Your task to perform on an android device: Open calendar and show me the fourth week of next month Image 0: 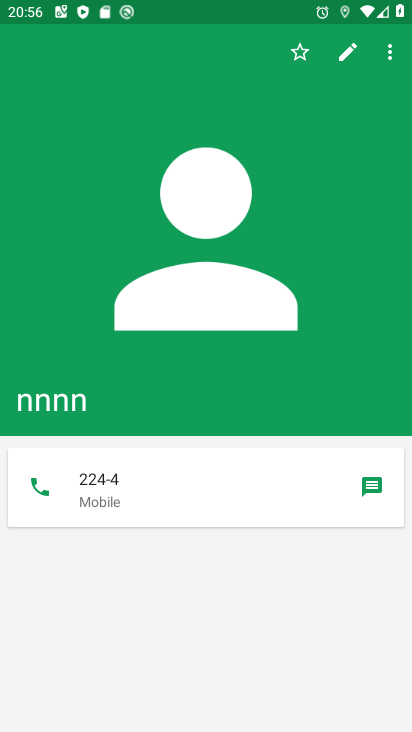
Step 0: press home button
Your task to perform on an android device: Open calendar and show me the fourth week of next month Image 1: 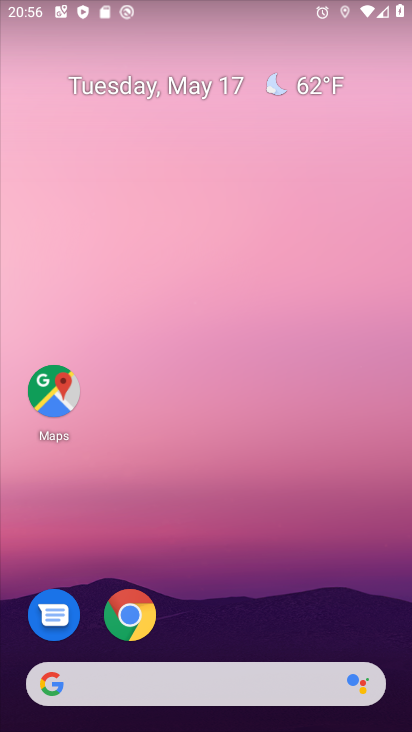
Step 1: drag from (294, 594) to (218, 85)
Your task to perform on an android device: Open calendar and show me the fourth week of next month Image 2: 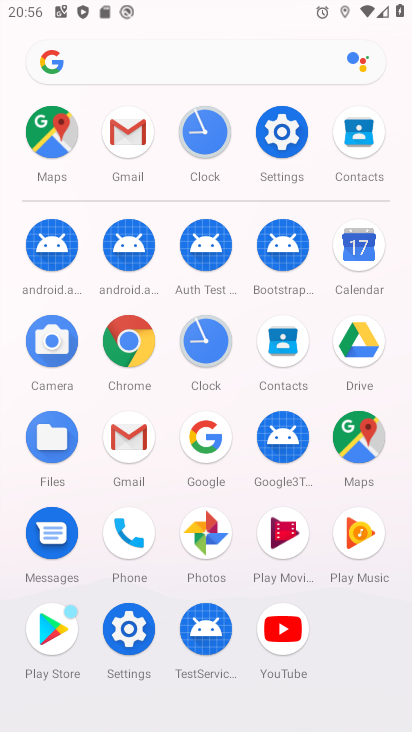
Step 2: click (370, 241)
Your task to perform on an android device: Open calendar and show me the fourth week of next month Image 3: 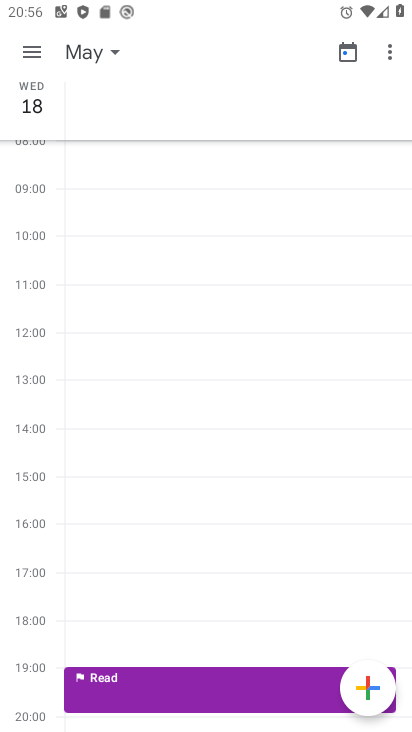
Step 3: click (100, 50)
Your task to perform on an android device: Open calendar and show me the fourth week of next month Image 4: 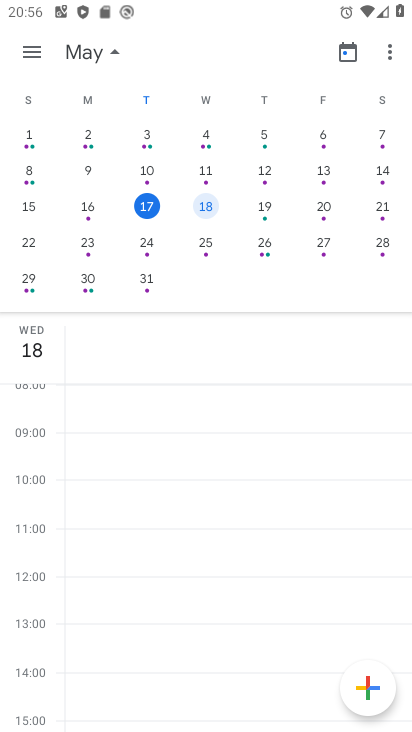
Step 4: drag from (370, 184) to (1, 155)
Your task to perform on an android device: Open calendar and show me the fourth week of next month Image 5: 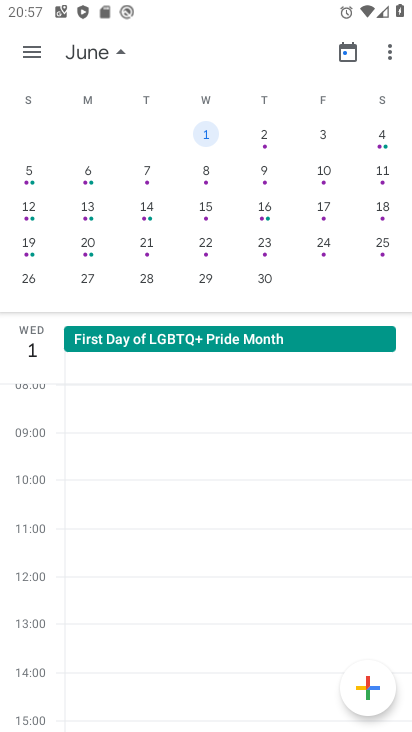
Step 5: click (376, 241)
Your task to perform on an android device: Open calendar and show me the fourth week of next month Image 6: 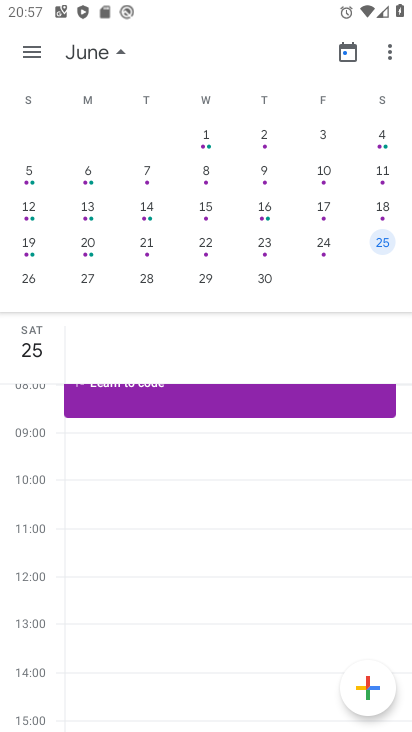
Step 6: task complete